Your task to perform on an android device: Go to Google Image 0: 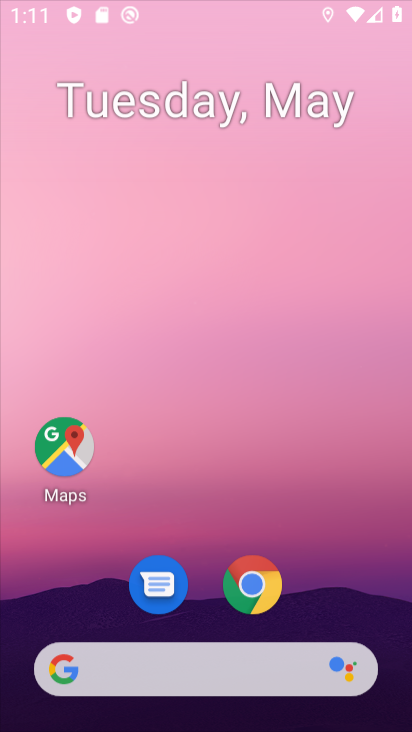
Step 0: click (323, 124)
Your task to perform on an android device: Go to Google Image 1: 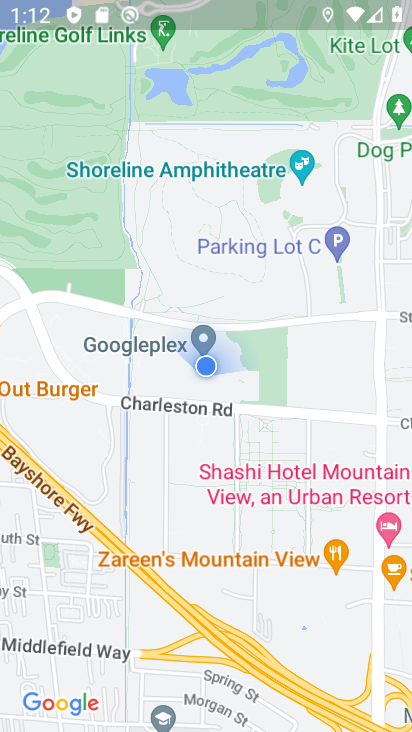
Step 1: drag from (193, 548) to (297, 312)
Your task to perform on an android device: Go to Google Image 2: 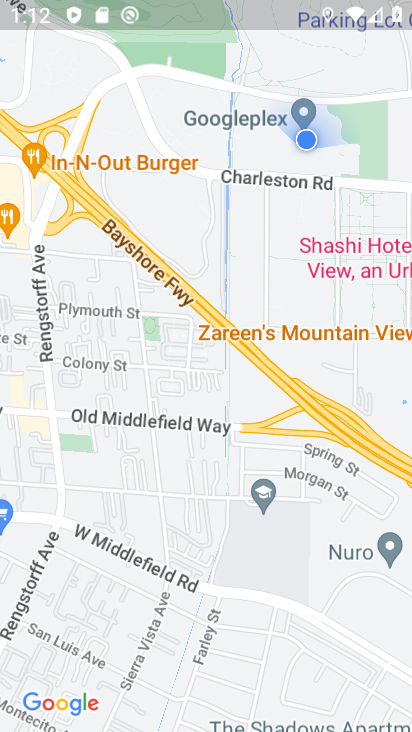
Step 2: press home button
Your task to perform on an android device: Go to Google Image 3: 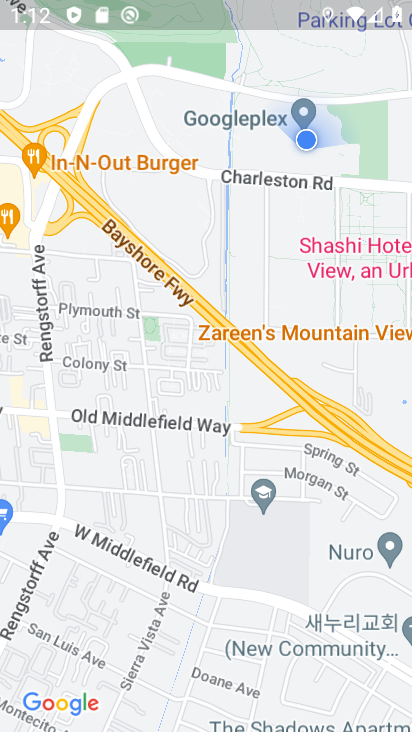
Step 3: click (285, 78)
Your task to perform on an android device: Go to Google Image 4: 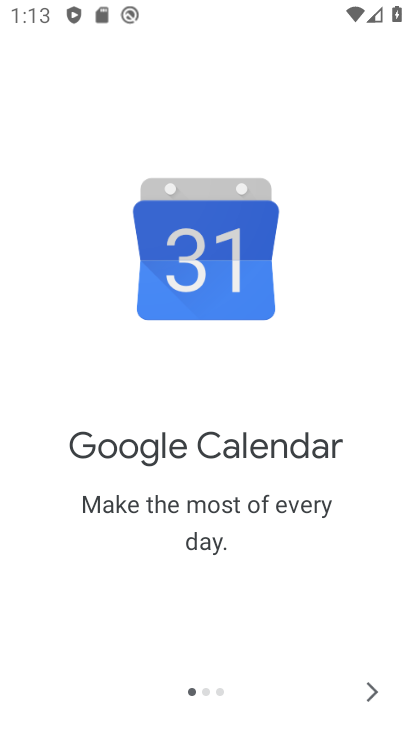
Step 4: drag from (245, 580) to (282, 49)
Your task to perform on an android device: Go to Google Image 5: 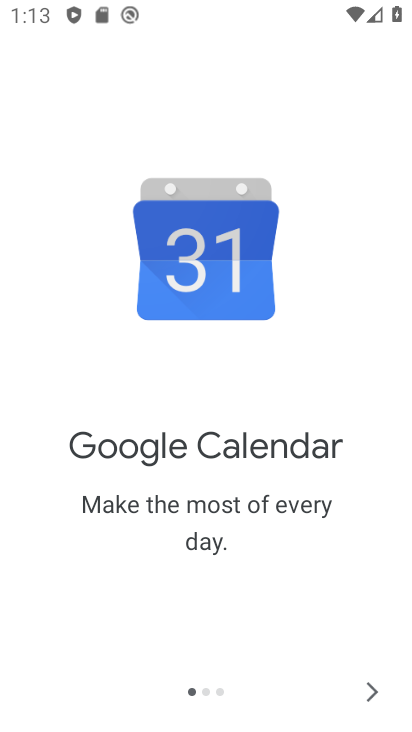
Step 5: click (375, 698)
Your task to perform on an android device: Go to Google Image 6: 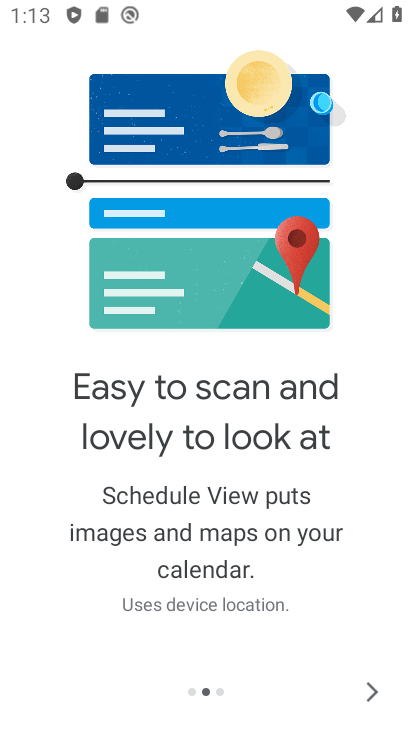
Step 6: press home button
Your task to perform on an android device: Go to Google Image 7: 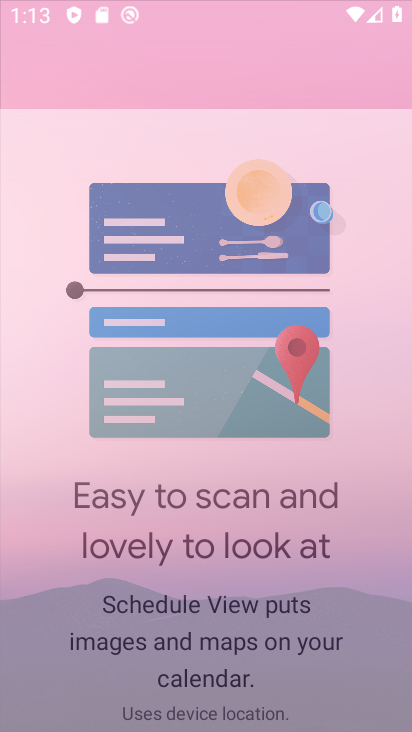
Step 7: drag from (198, 546) to (237, 312)
Your task to perform on an android device: Go to Google Image 8: 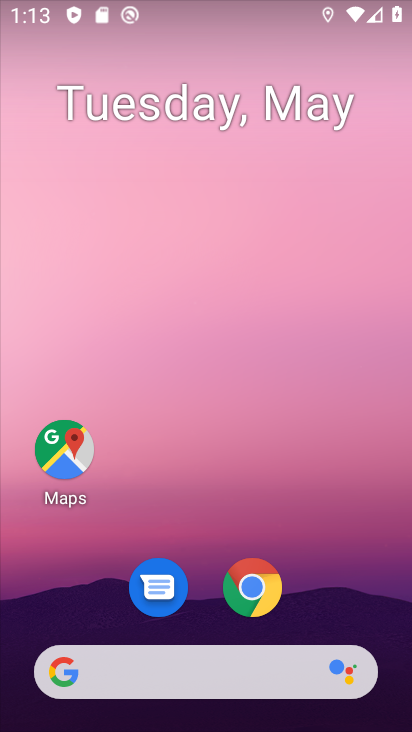
Step 8: drag from (208, 620) to (230, 35)
Your task to perform on an android device: Go to Google Image 9: 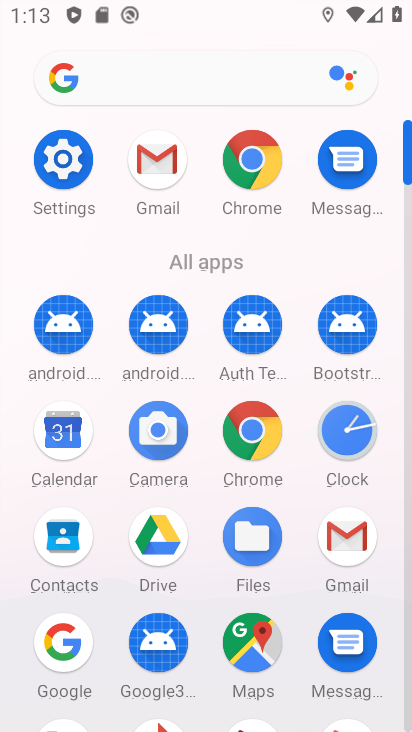
Step 9: drag from (202, 580) to (188, 121)
Your task to perform on an android device: Go to Google Image 10: 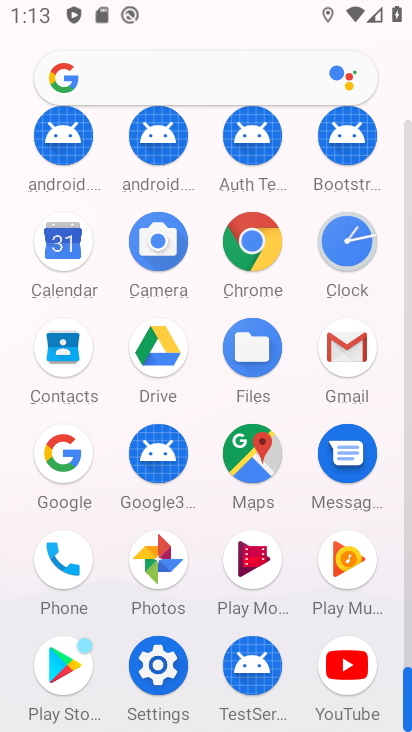
Step 10: click (69, 444)
Your task to perform on an android device: Go to Google Image 11: 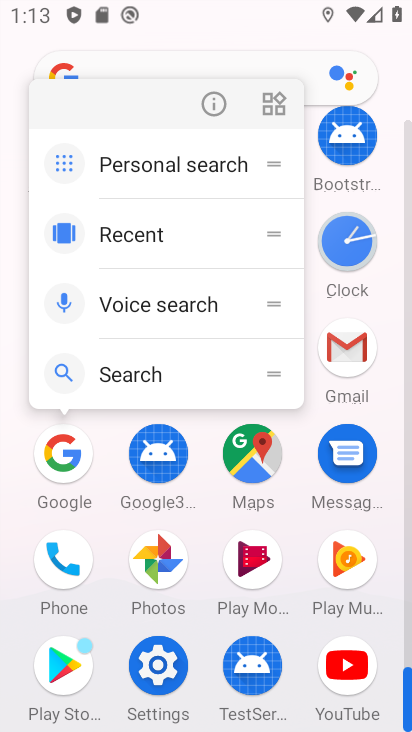
Step 11: click (207, 108)
Your task to perform on an android device: Go to Google Image 12: 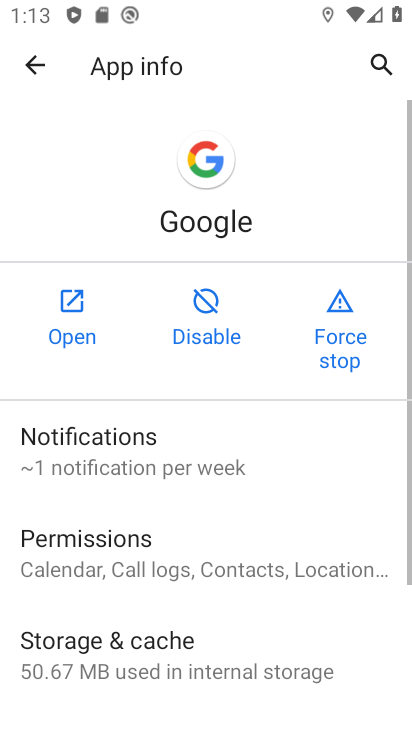
Step 12: click (78, 308)
Your task to perform on an android device: Go to Google Image 13: 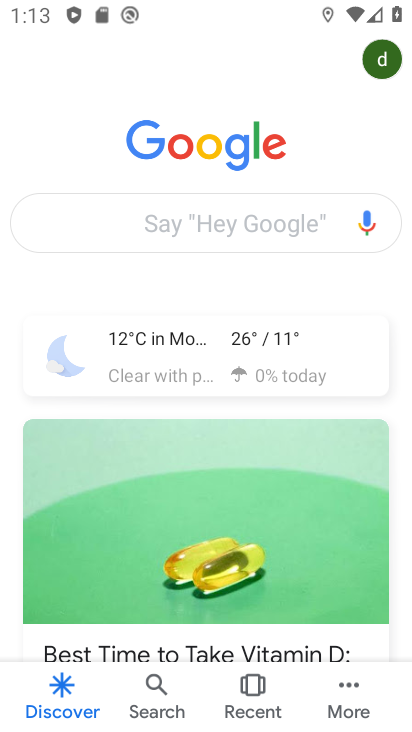
Step 13: task complete